Your task to perform on an android device: Open Google Image 0: 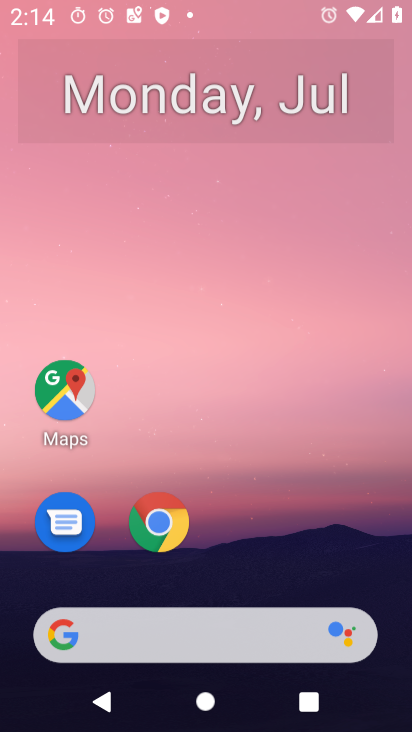
Step 0: press home button
Your task to perform on an android device: Open Google Image 1: 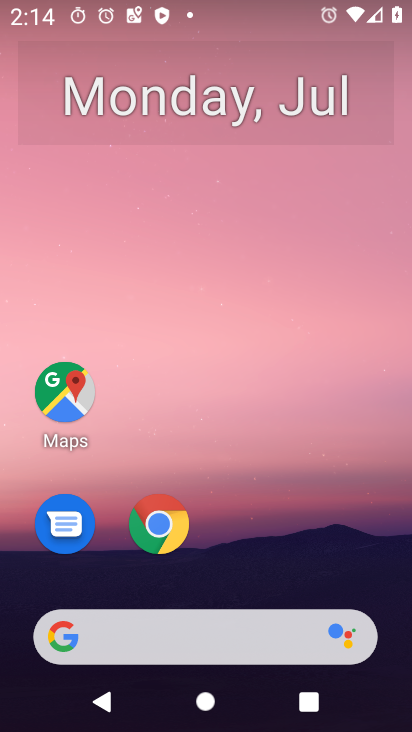
Step 1: click (54, 644)
Your task to perform on an android device: Open Google Image 2: 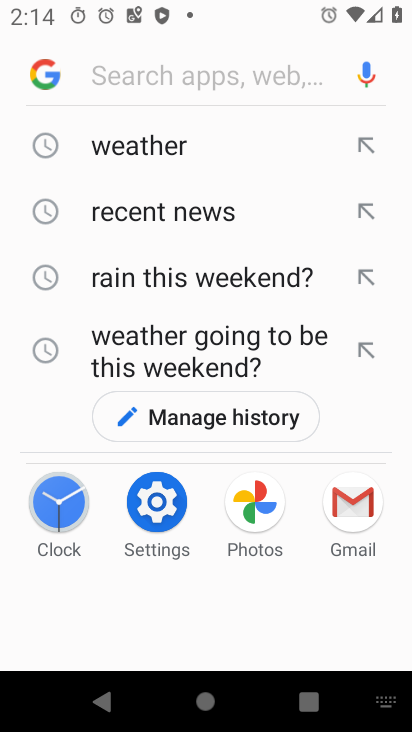
Step 2: task complete